Your task to perform on an android device: Do I have any events tomorrow? Image 0: 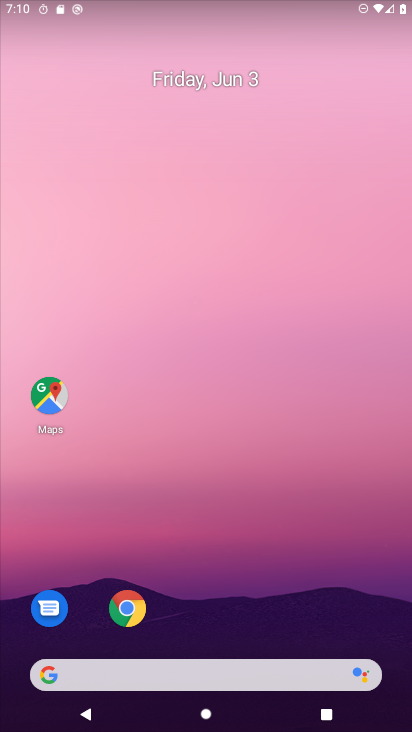
Step 0: click (221, 82)
Your task to perform on an android device: Do I have any events tomorrow? Image 1: 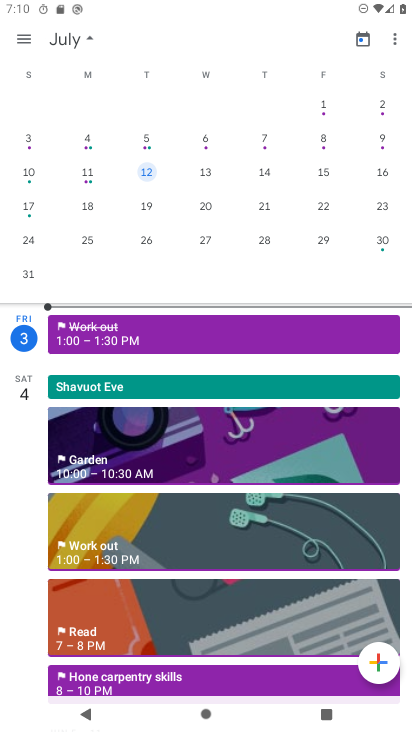
Step 1: click (215, 176)
Your task to perform on an android device: Do I have any events tomorrow? Image 2: 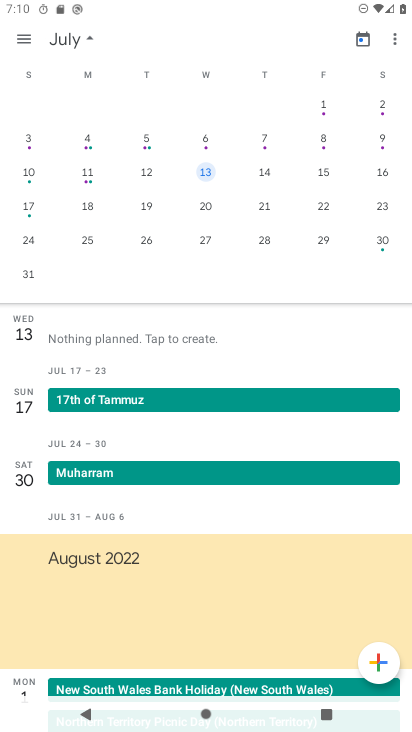
Step 2: task complete